Your task to perform on an android device: Go to Maps Image 0: 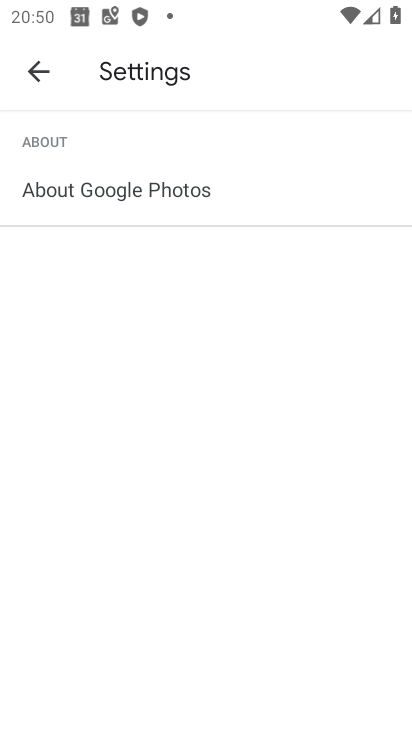
Step 0: press home button
Your task to perform on an android device: Go to Maps Image 1: 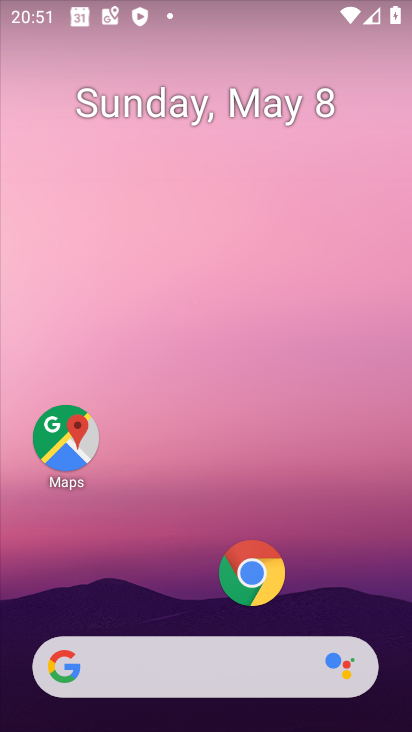
Step 1: click (59, 436)
Your task to perform on an android device: Go to Maps Image 2: 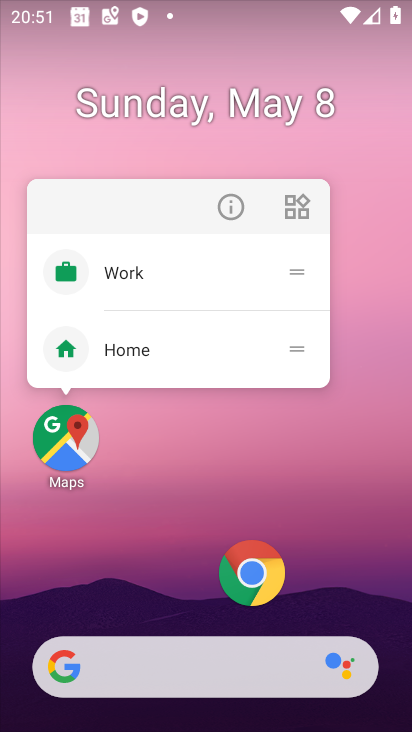
Step 2: click (69, 432)
Your task to perform on an android device: Go to Maps Image 3: 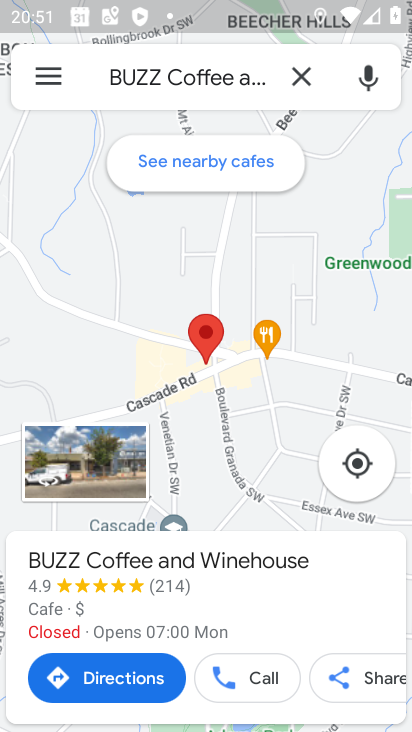
Step 3: task complete